Your task to perform on an android device: Go to location settings Image 0: 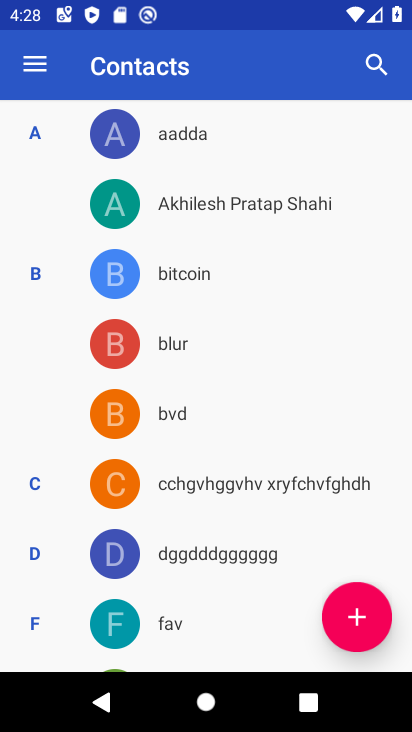
Step 0: press home button
Your task to perform on an android device: Go to location settings Image 1: 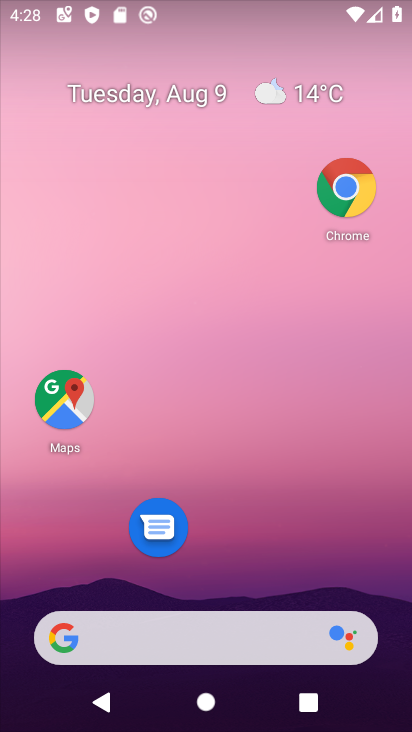
Step 1: drag from (224, 566) to (217, 33)
Your task to perform on an android device: Go to location settings Image 2: 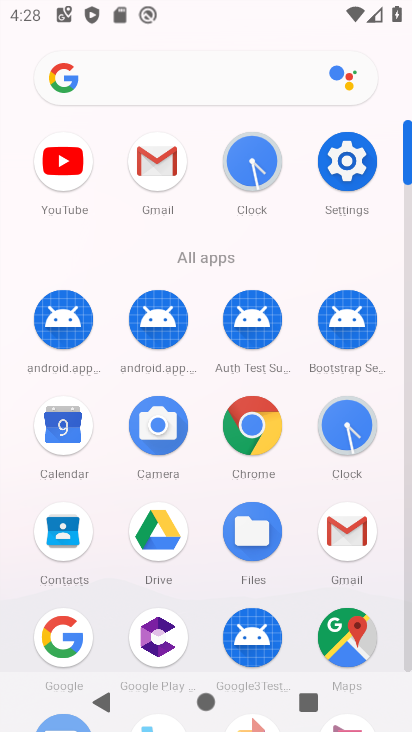
Step 2: click (367, 157)
Your task to perform on an android device: Go to location settings Image 3: 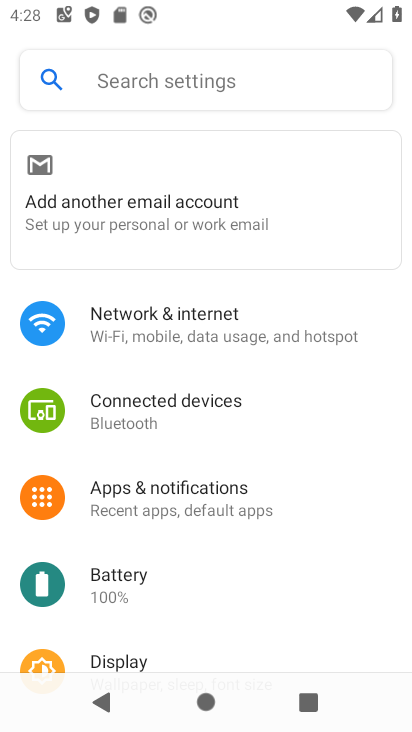
Step 3: drag from (132, 615) to (152, 210)
Your task to perform on an android device: Go to location settings Image 4: 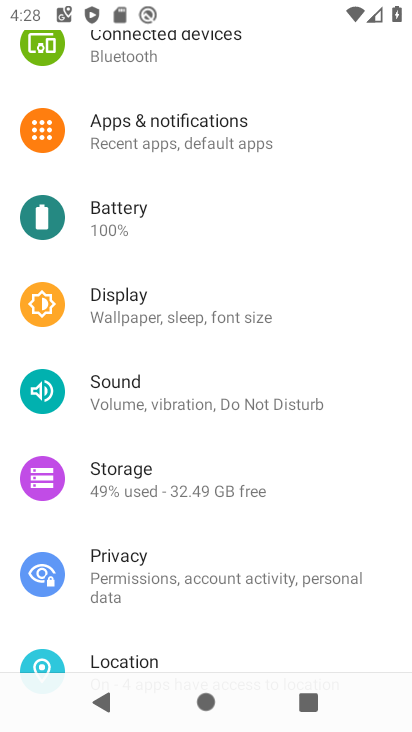
Step 4: drag from (193, 538) to (194, 165)
Your task to perform on an android device: Go to location settings Image 5: 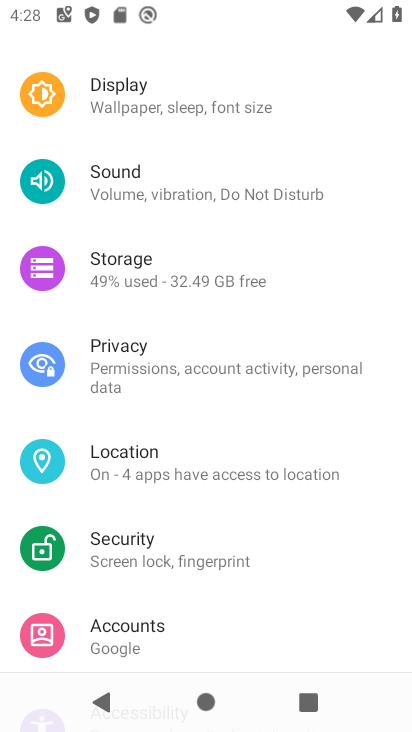
Step 5: click (285, 485)
Your task to perform on an android device: Go to location settings Image 6: 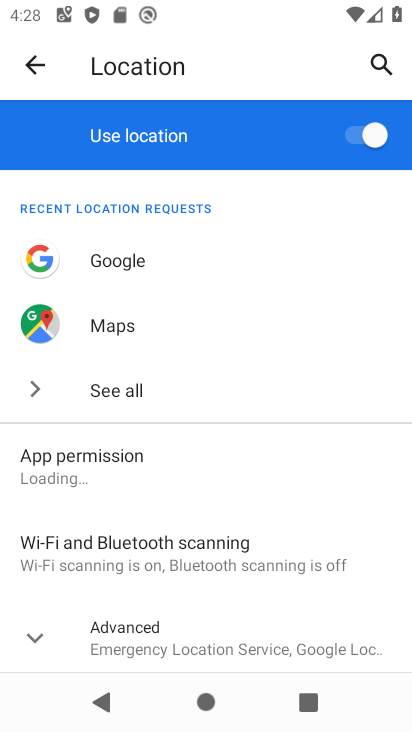
Step 6: task complete